Your task to perform on an android device: turn smart compose on in the gmail app Image 0: 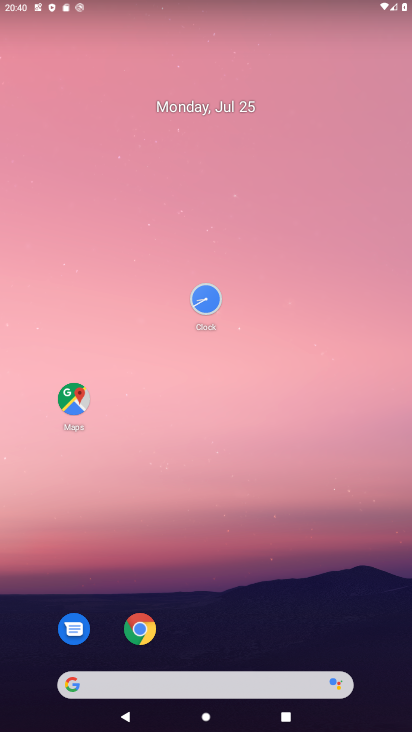
Step 0: drag from (210, 649) to (236, 2)
Your task to perform on an android device: turn smart compose on in the gmail app Image 1: 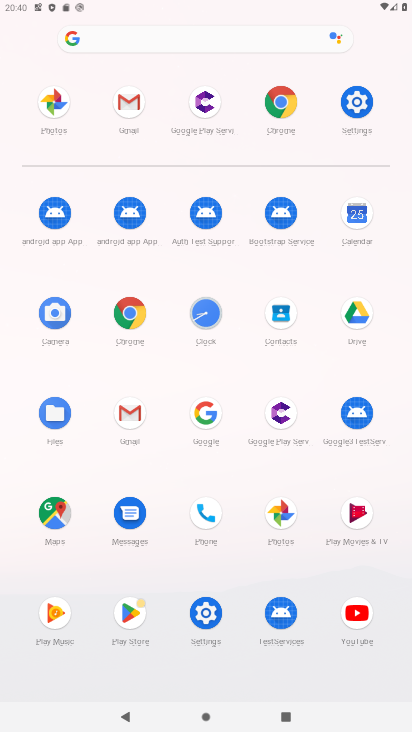
Step 1: click (124, 420)
Your task to perform on an android device: turn smart compose on in the gmail app Image 2: 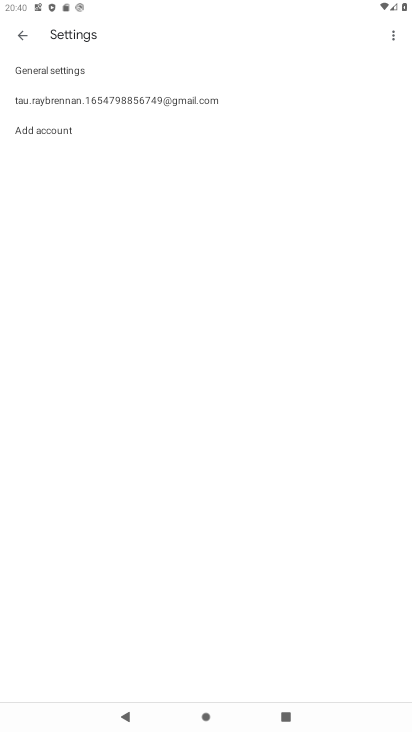
Step 2: click (152, 111)
Your task to perform on an android device: turn smart compose on in the gmail app Image 3: 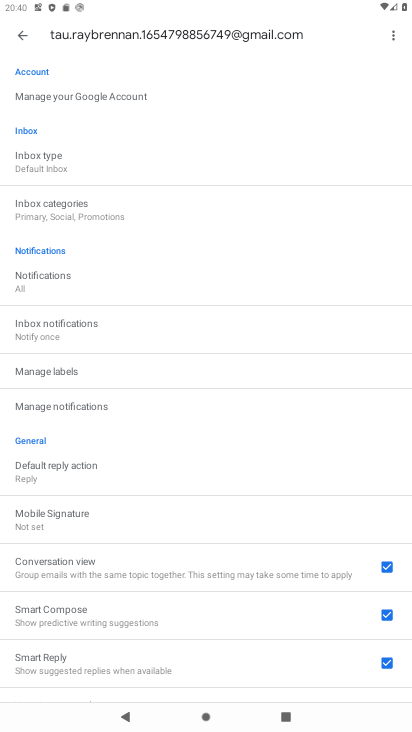
Step 3: task complete